Your task to perform on an android device: uninstall "Move to iOS" Image 0: 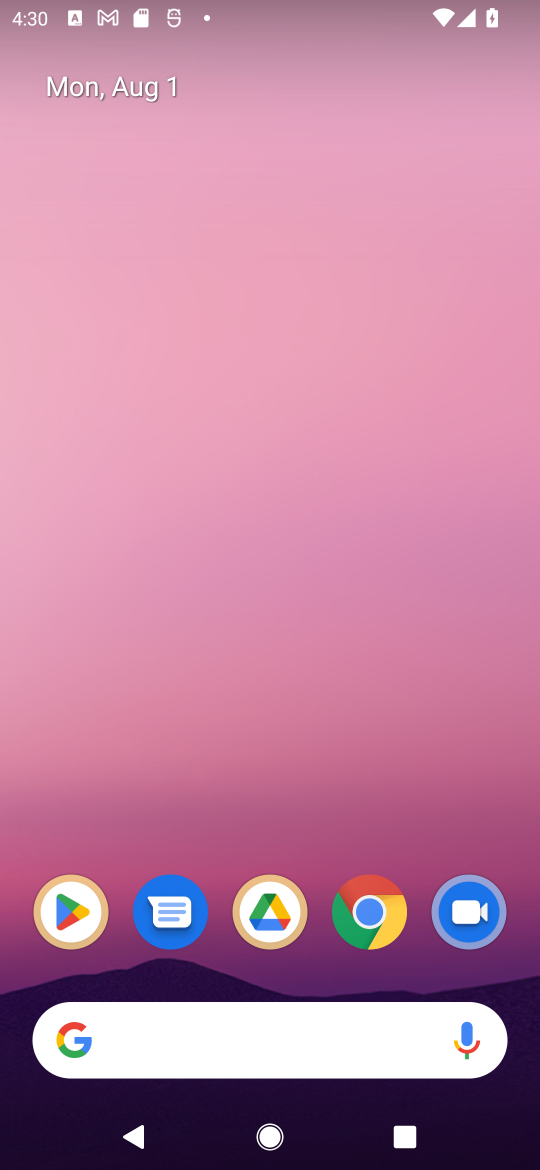
Step 0: press home button
Your task to perform on an android device: uninstall "Move to iOS" Image 1: 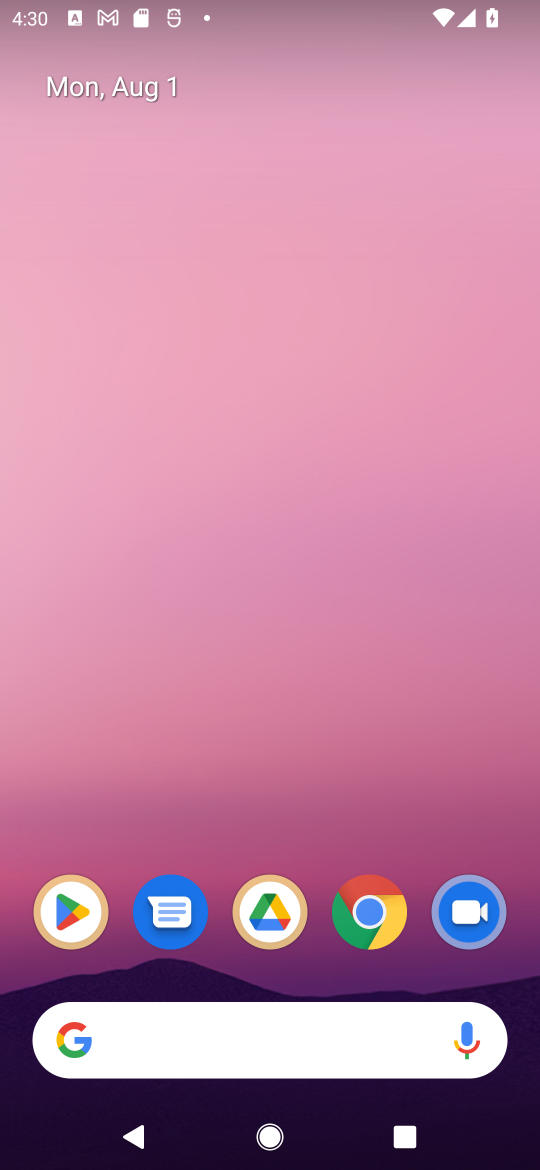
Step 1: click (59, 926)
Your task to perform on an android device: uninstall "Move to iOS" Image 2: 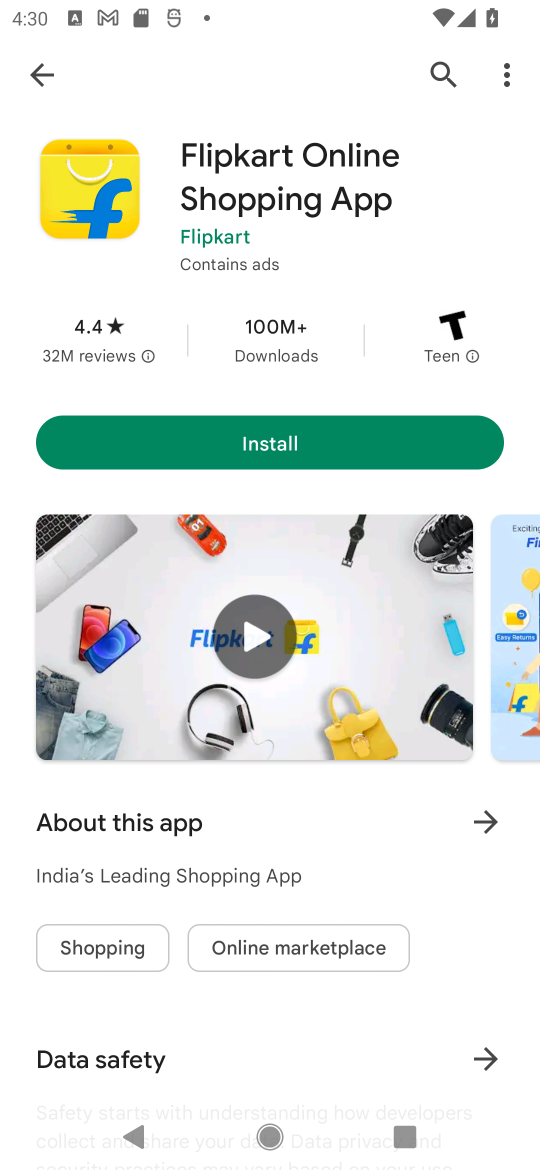
Step 2: click (438, 67)
Your task to perform on an android device: uninstall "Move to iOS" Image 3: 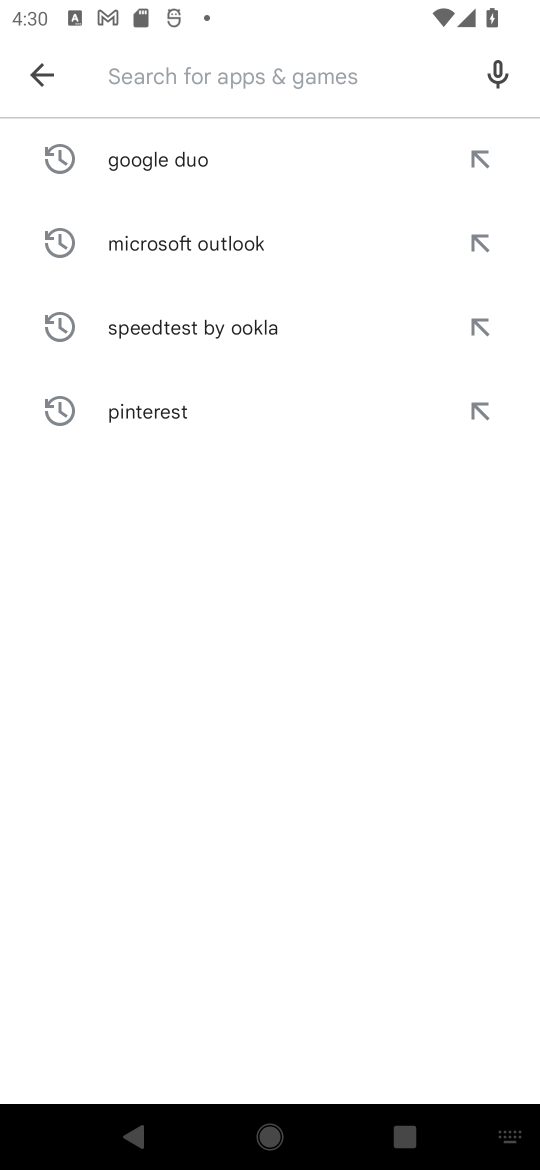
Step 3: type "Move to iOS"
Your task to perform on an android device: uninstall "Move to iOS" Image 4: 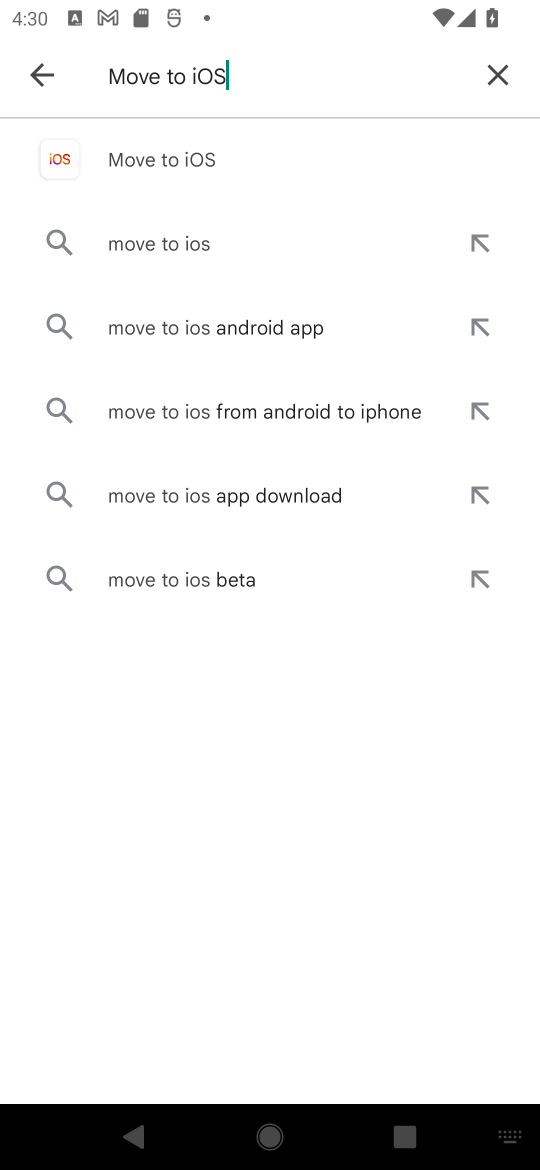
Step 4: click (175, 173)
Your task to perform on an android device: uninstall "Move to iOS" Image 5: 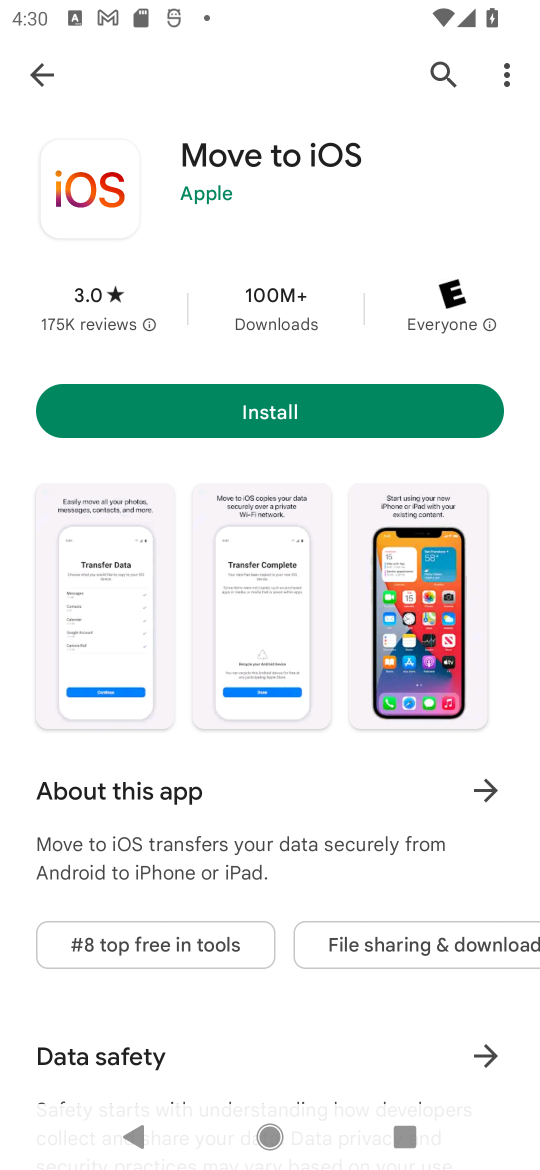
Step 5: task complete